Your task to perform on an android device: find which apps use the phone's location Image 0: 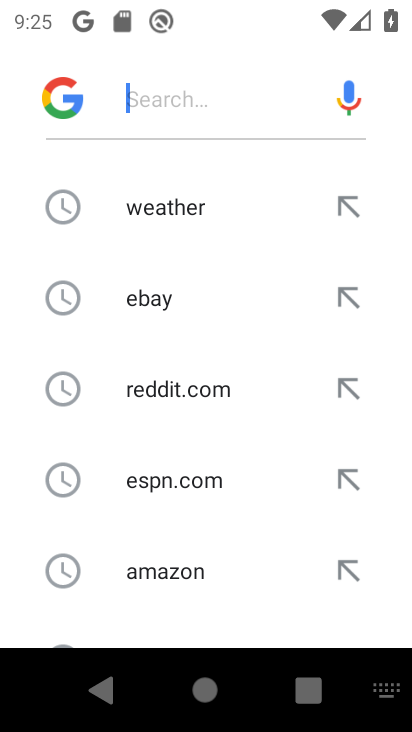
Step 0: press home button
Your task to perform on an android device: find which apps use the phone's location Image 1: 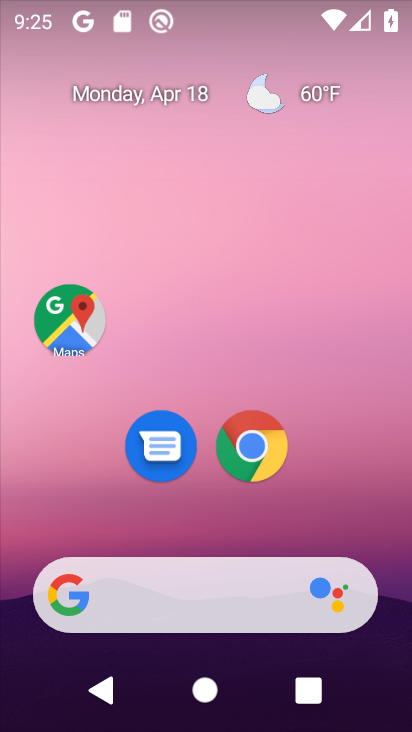
Step 1: drag from (374, 515) to (362, 170)
Your task to perform on an android device: find which apps use the phone's location Image 2: 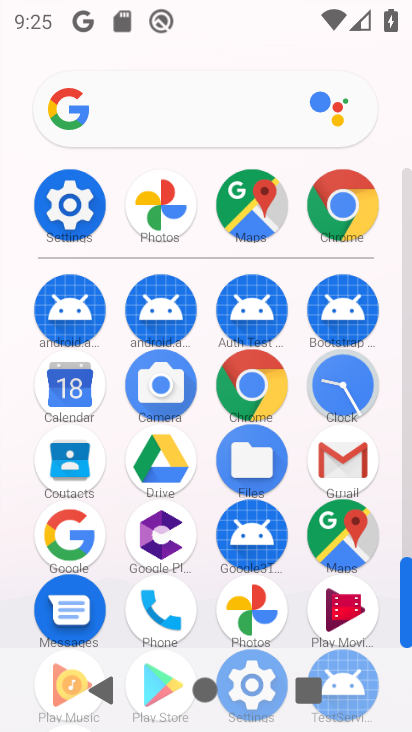
Step 2: click (70, 207)
Your task to perform on an android device: find which apps use the phone's location Image 3: 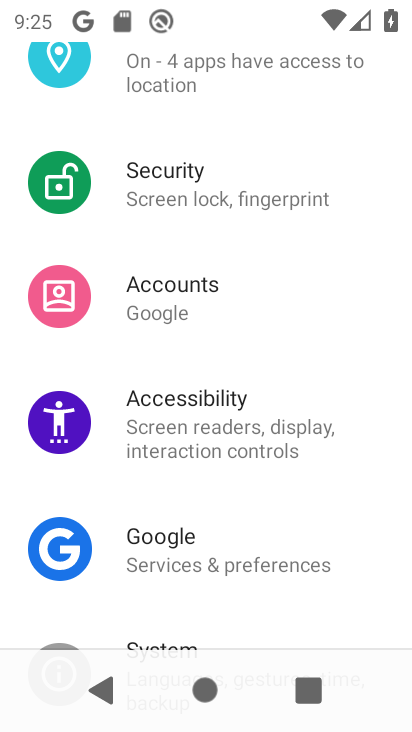
Step 3: drag from (363, 327) to (367, 455)
Your task to perform on an android device: find which apps use the phone's location Image 4: 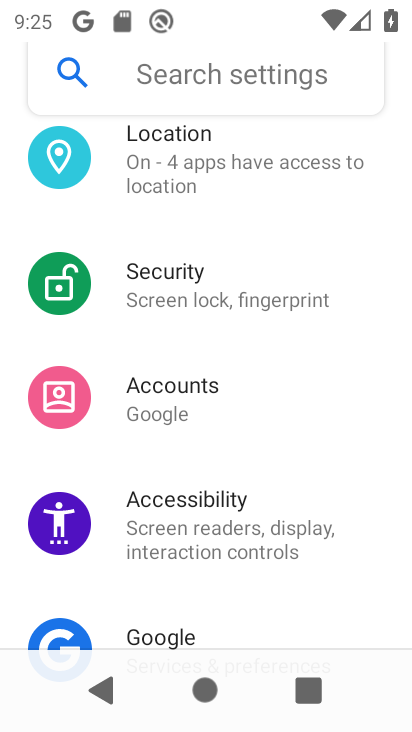
Step 4: drag from (380, 313) to (376, 453)
Your task to perform on an android device: find which apps use the phone's location Image 5: 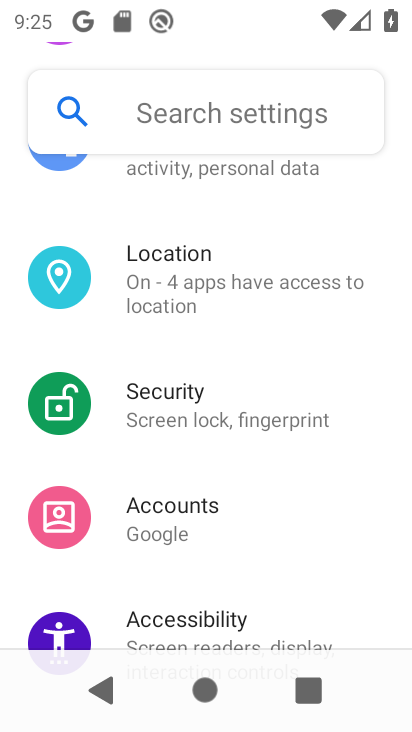
Step 5: drag from (376, 363) to (374, 483)
Your task to perform on an android device: find which apps use the phone's location Image 6: 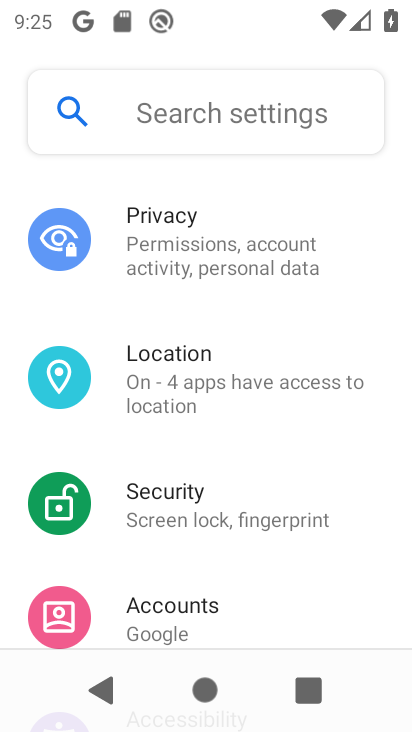
Step 6: drag from (383, 339) to (376, 486)
Your task to perform on an android device: find which apps use the phone's location Image 7: 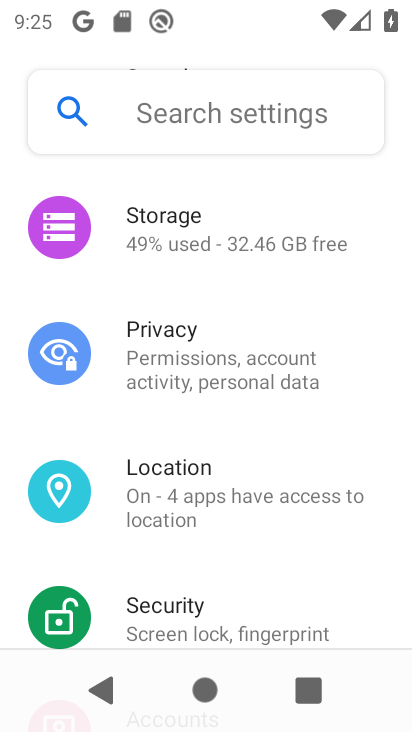
Step 7: click (295, 502)
Your task to perform on an android device: find which apps use the phone's location Image 8: 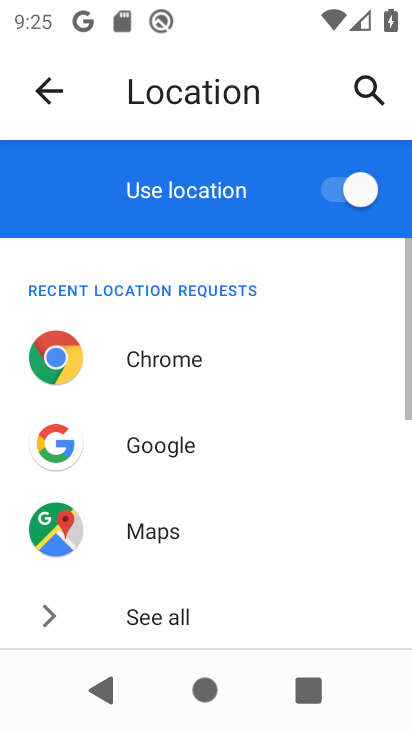
Step 8: drag from (321, 552) to (330, 411)
Your task to perform on an android device: find which apps use the phone's location Image 9: 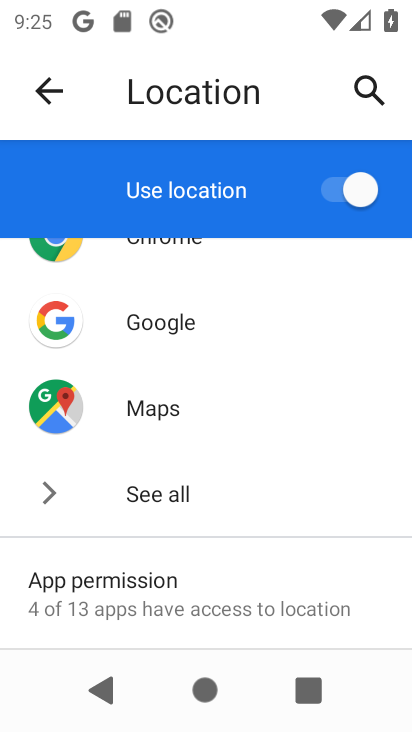
Step 9: drag from (368, 578) to (362, 409)
Your task to perform on an android device: find which apps use the phone's location Image 10: 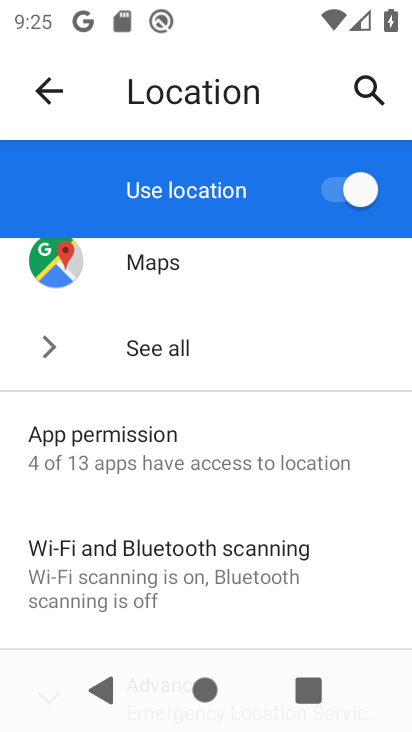
Step 10: click (303, 456)
Your task to perform on an android device: find which apps use the phone's location Image 11: 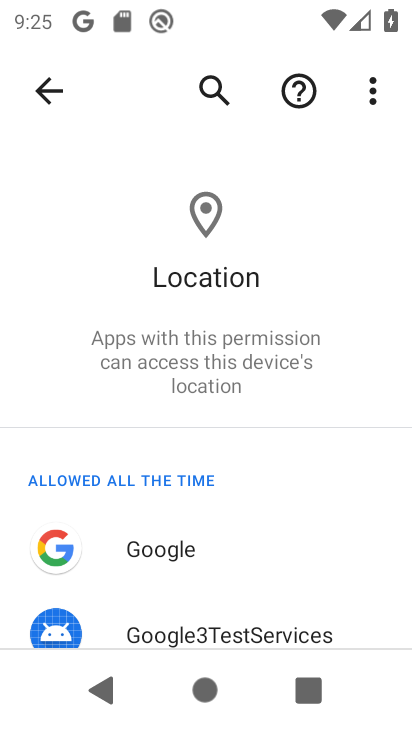
Step 11: drag from (342, 541) to (353, 373)
Your task to perform on an android device: find which apps use the phone's location Image 12: 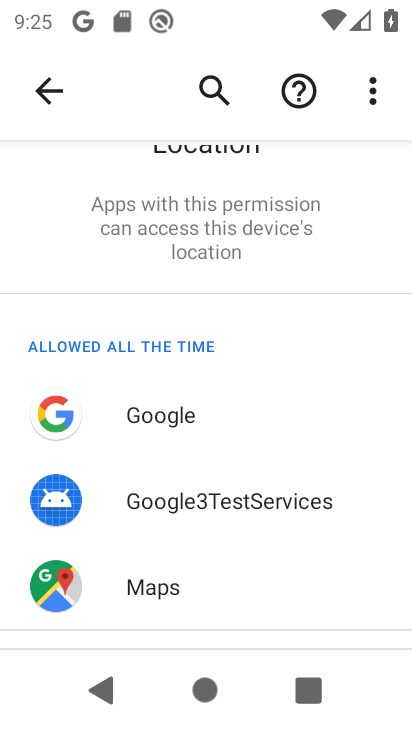
Step 12: drag from (367, 572) to (367, 417)
Your task to perform on an android device: find which apps use the phone's location Image 13: 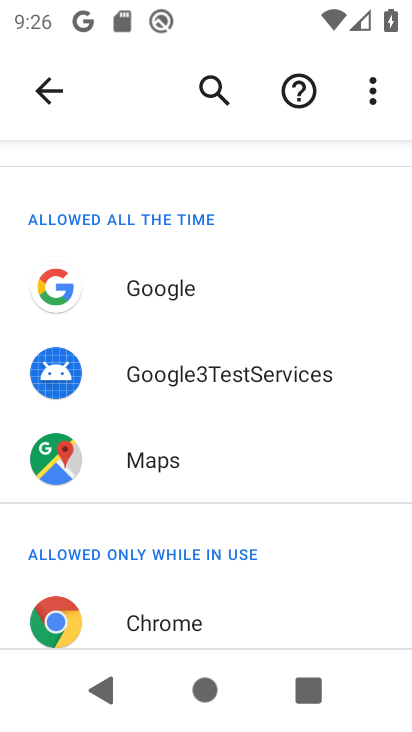
Step 13: drag from (360, 579) to (360, 417)
Your task to perform on an android device: find which apps use the phone's location Image 14: 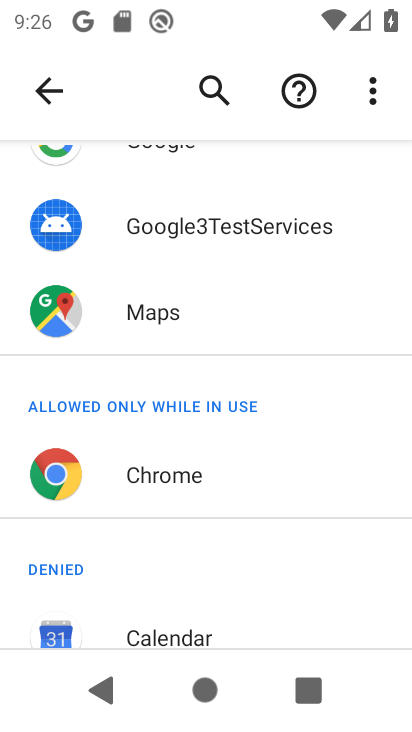
Step 14: drag from (362, 585) to (360, 422)
Your task to perform on an android device: find which apps use the phone's location Image 15: 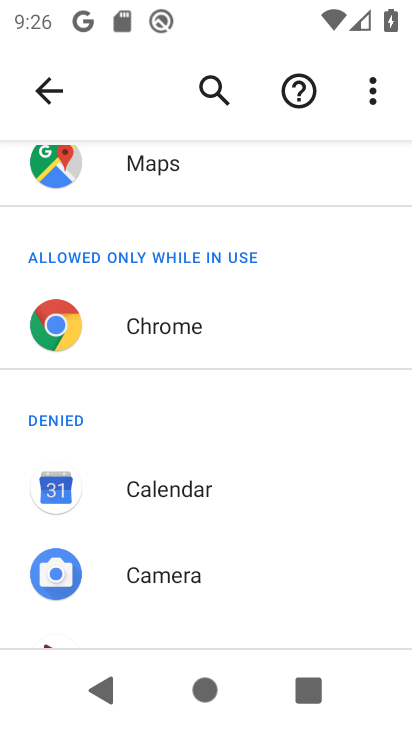
Step 15: drag from (361, 537) to (346, 341)
Your task to perform on an android device: find which apps use the phone's location Image 16: 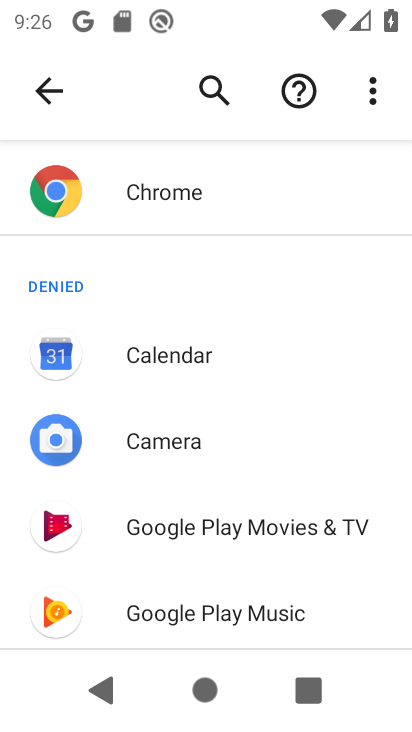
Step 16: drag from (360, 569) to (356, 421)
Your task to perform on an android device: find which apps use the phone's location Image 17: 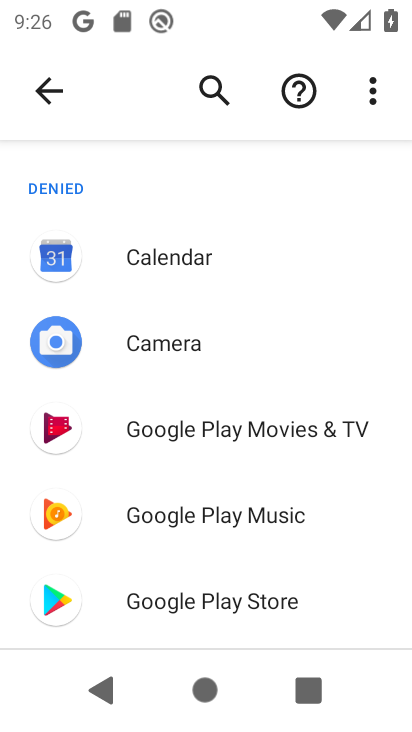
Step 17: drag from (365, 608) to (360, 427)
Your task to perform on an android device: find which apps use the phone's location Image 18: 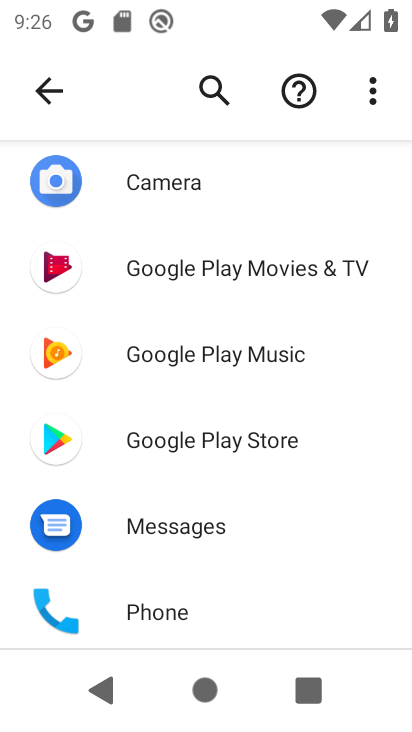
Step 18: drag from (375, 579) to (361, 387)
Your task to perform on an android device: find which apps use the phone's location Image 19: 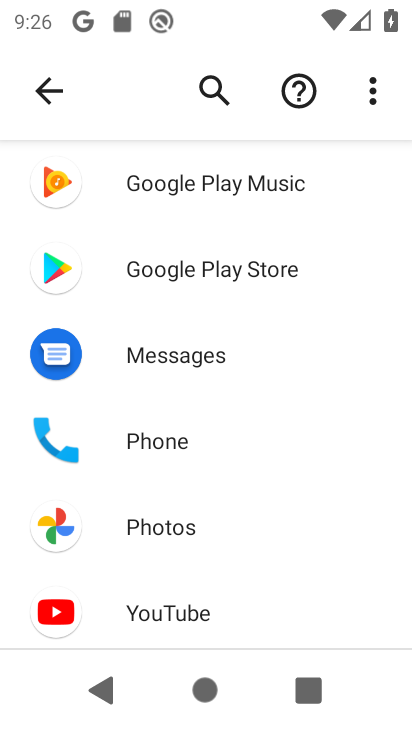
Step 19: click (167, 519)
Your task to perform on an android device: find which apps use the phone's location Image 20: 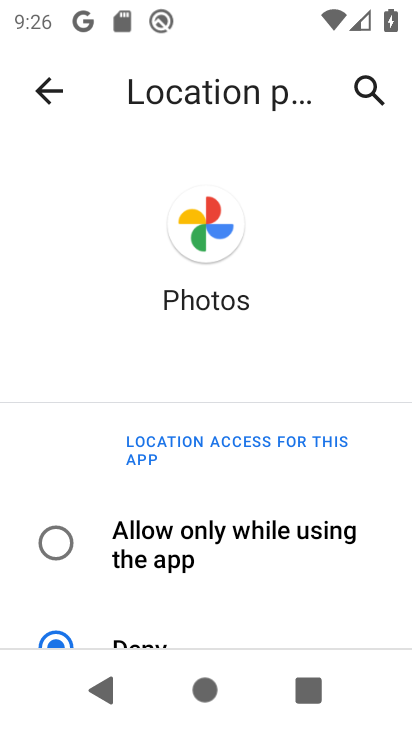
Step 20: click (50, 535)
Your task to perform on an android device: find which apps use the phone's location Image 21: 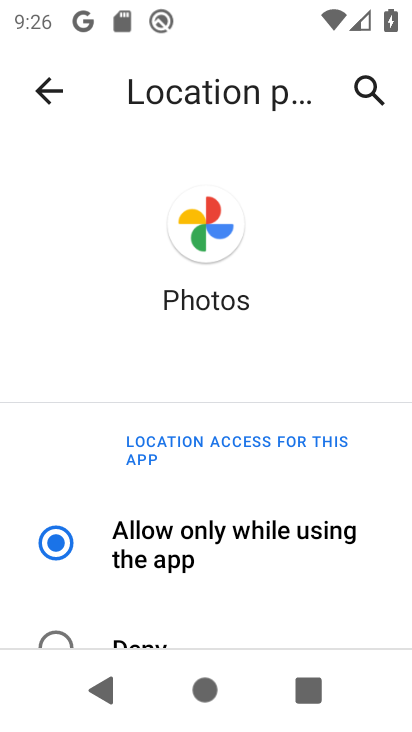
Step 21: task complete